Your task to perform on an android device: turn off airplane mode Image 0: 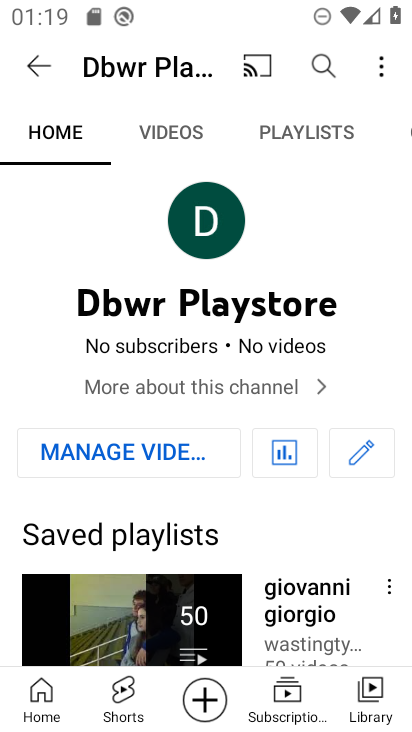
Step 0: press home button
Your task to perform on an android device: turn off airplane mode Image 1: 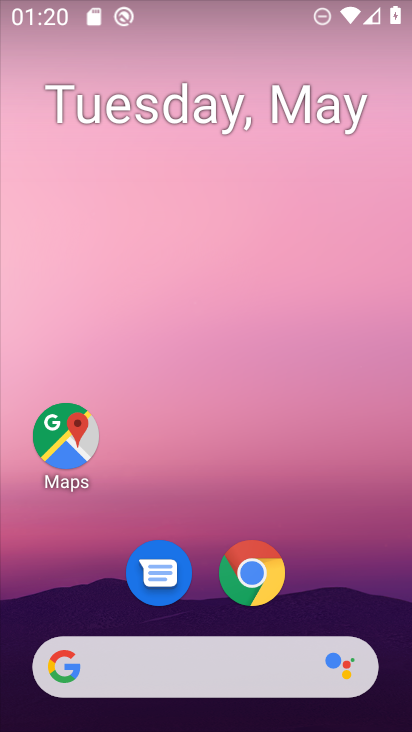
Step 1: drag from (339, 587) to (215, 30)
Your task to perform on an android device: turn off airplane mode Image 2: 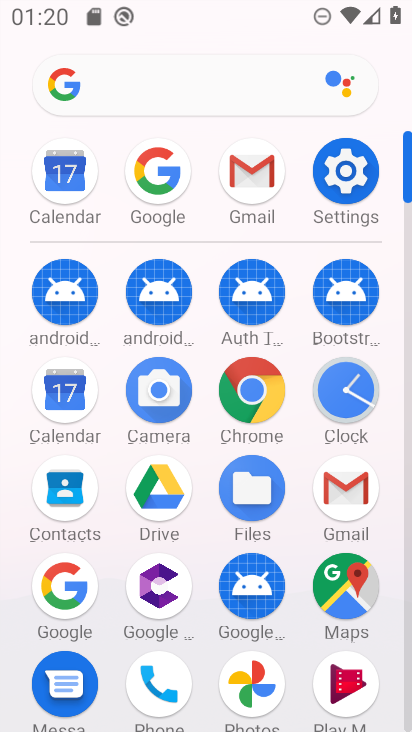
Step 2: click (356, 172)
Your task to perform on an android device: turn off airplane mode Image 3: 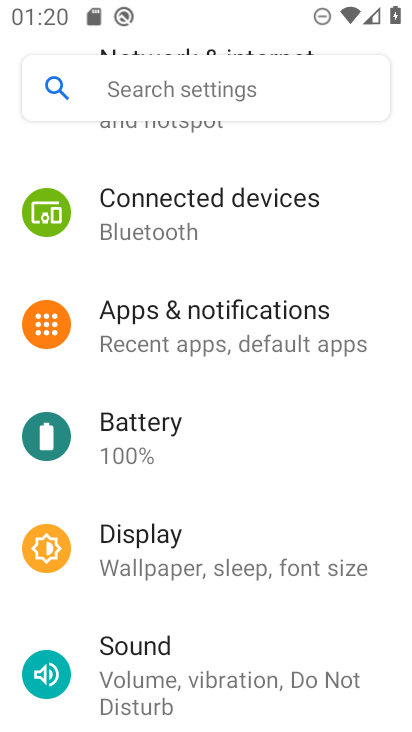
Step 3: drag from (281, 257) to (261, 651)
Your task to perform on an android device: turn off airplane mode Image 4: 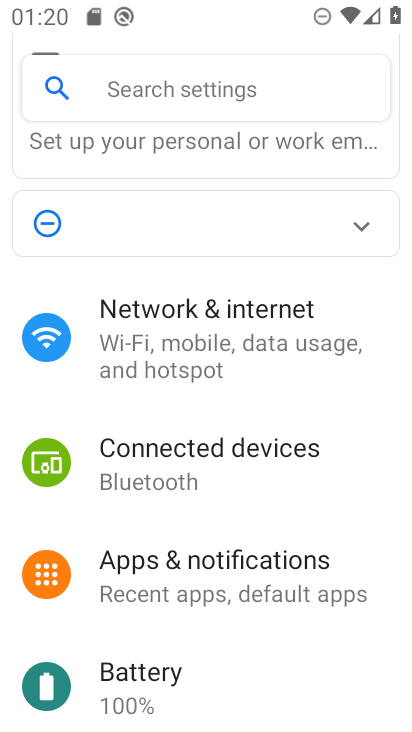
Step 4: click (211, 346)
Your task to perform on an android device: turn off airplane mode Image 5: 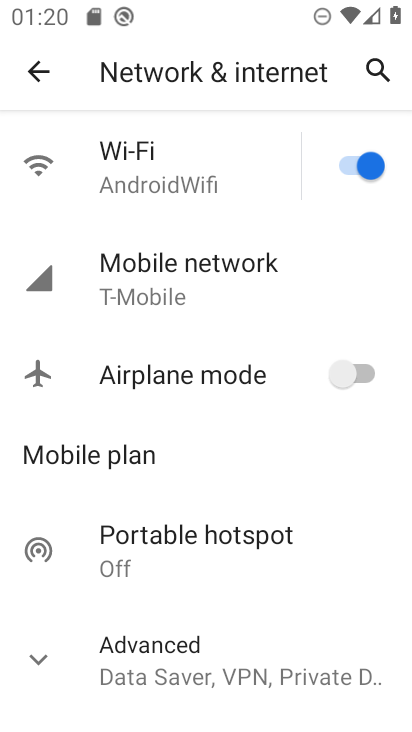
Step 5: task complete